Your task to perform on an android device: Search for usb-c to usb-b on walmart.com, select the first entry, add it to the cart, then select checkout. Image 0: 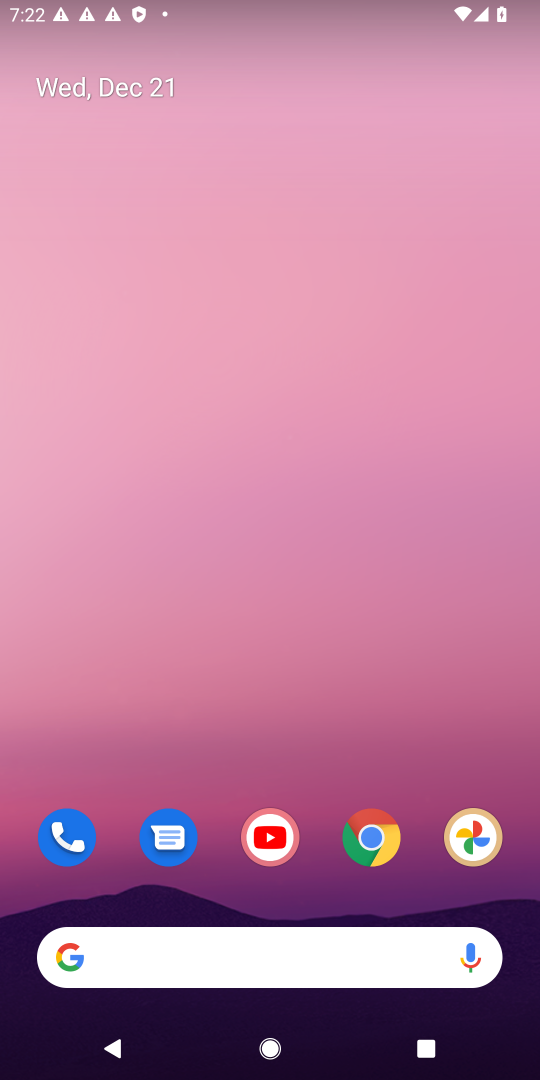
Step 0: drag from (273, 927) to (165, 140)
Your task to perform on an android device: Search for usb-c to usb-b on walmart.com, select the first entry, add it to the cart, then select checkout. Image 1: 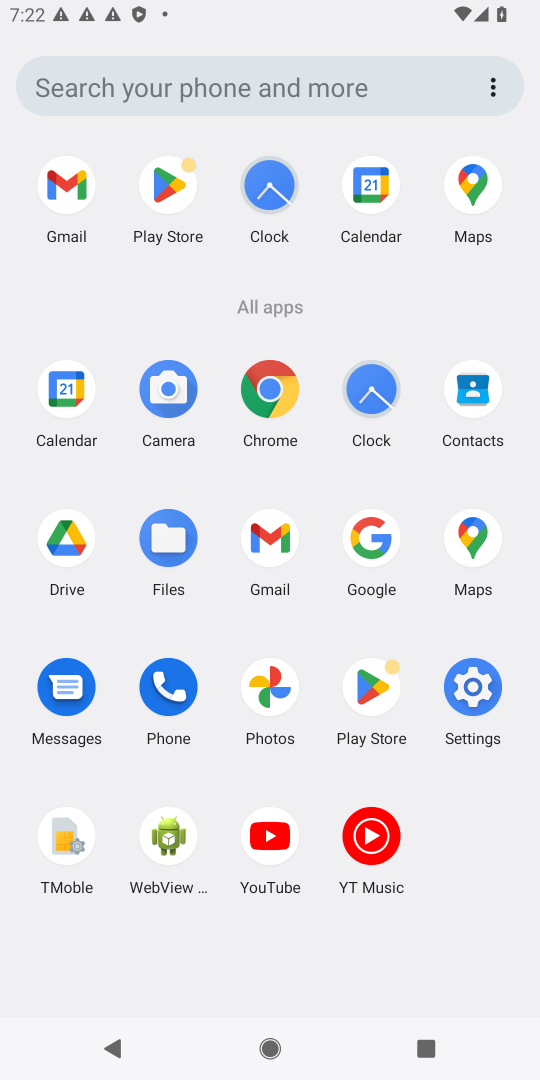
Step 1: click (386, 533)
Your task to perform on an android device: Search for usb-c to usb-b on walmart.com, select the first entry, add it to the cart, then select checkout. Image 2: 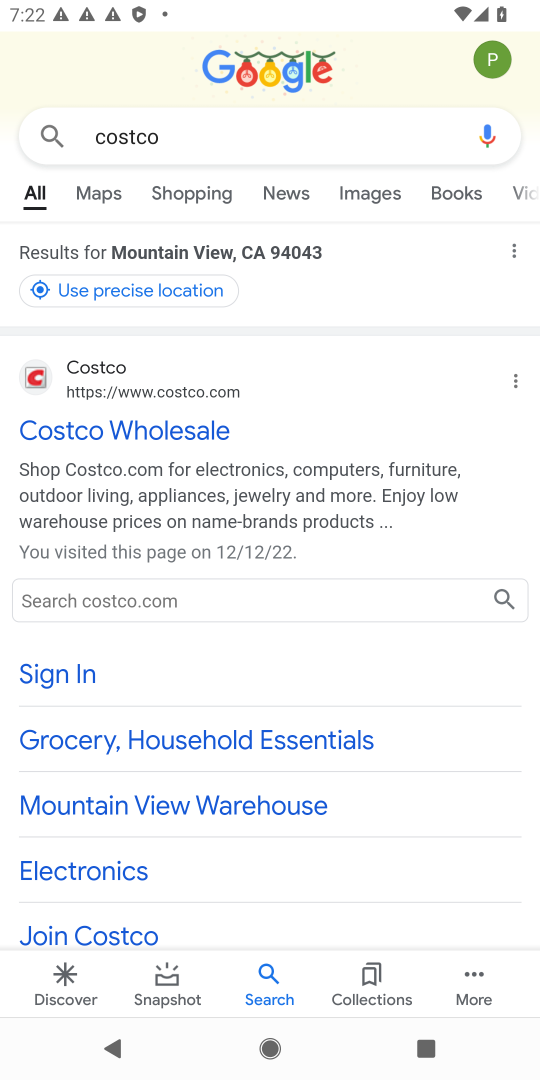
Step 2: click (110, 145)
Your task to perform on an android device: Search for usb-c to usb-b on walmart.com, select the first entry, add it to the cart, then select checkout. Image 3: 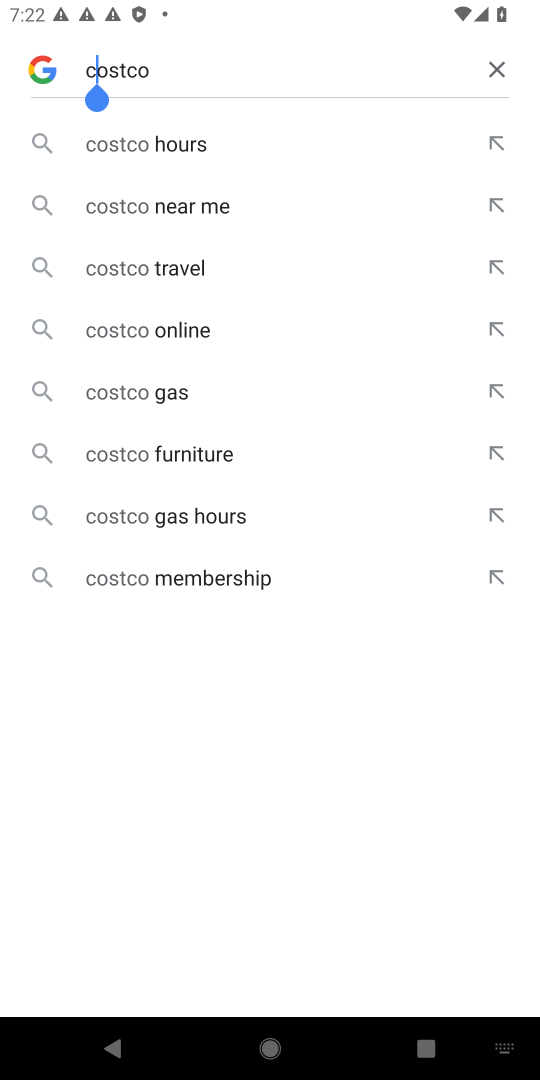
Step 3: click (506, 66)
Your task to perform on an android device: Search for usb-c to usb-b on walmart.com, select the first entry, add it to the cart, then select checkout. Image 4: 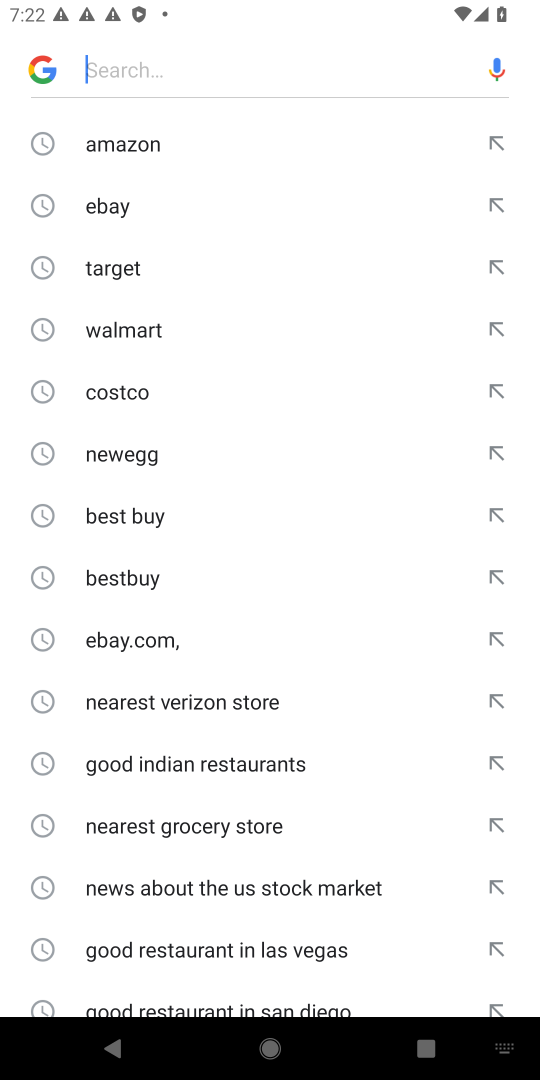
Step 4: click (121, 328)
Your task to perform on an android device: Search for usb-c to usb-b on walmart.com, select the first entry, add it to the cart, then select checkout. Image 5: 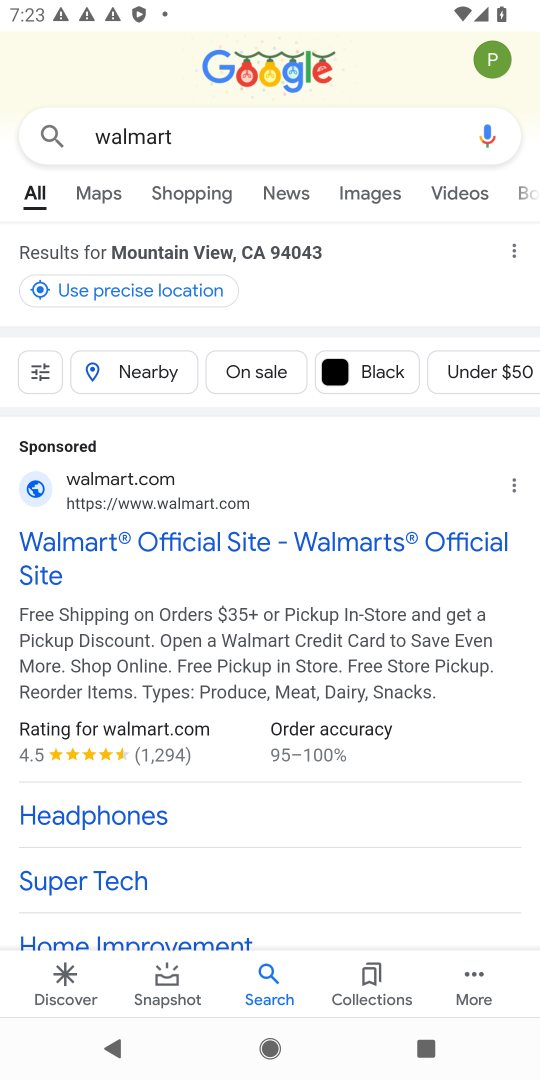
Step 5: click (152, 550)
Your task to perform on an android device: Search for usb-c to usb-b on walmart.com, select the first entry, add it to the cart, then select checkout. Image 6: 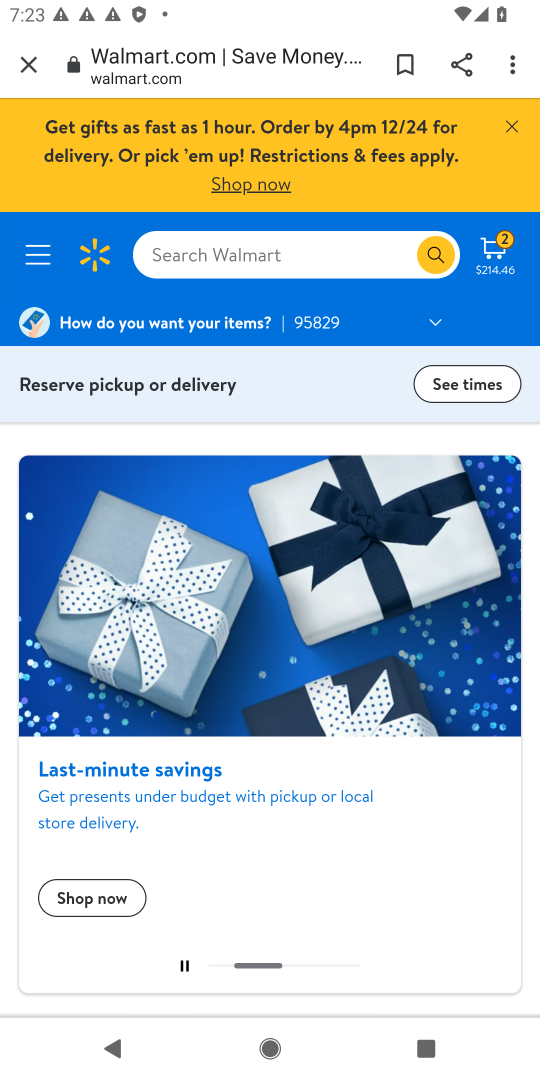
Step 6: click (163, 250)
Your task to perform on an android device: Search for usb-c to usb-b on walmart.com, select the first entry, add it to the cart, then select checkout. Image 7: 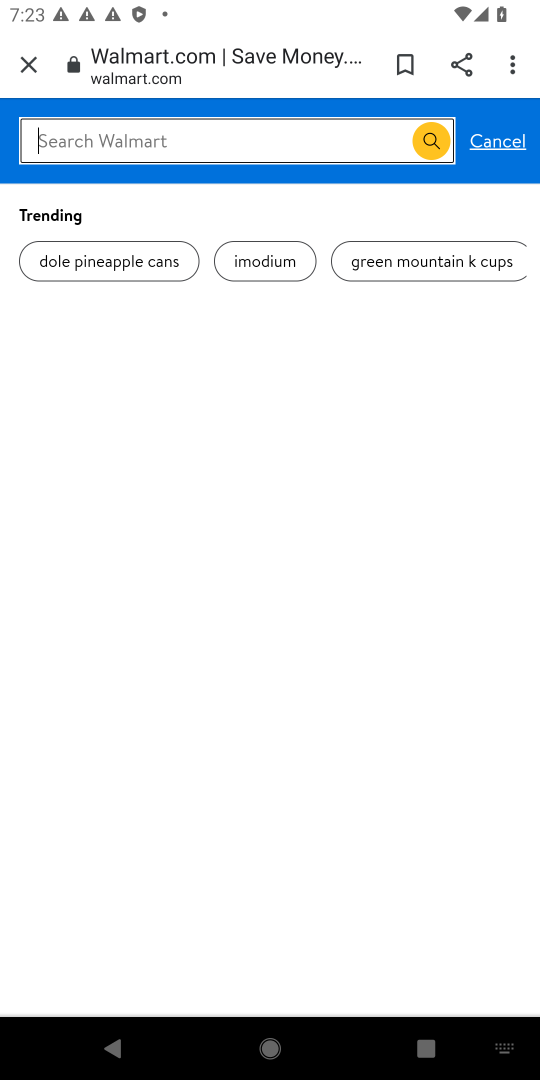
Step 7: type "usb-c to usb-b"
Your task to perform on an android device: Search for usb-c to usb-b on walmart.com, select the first entry, add it to the cart, then select checkout. Image 8: 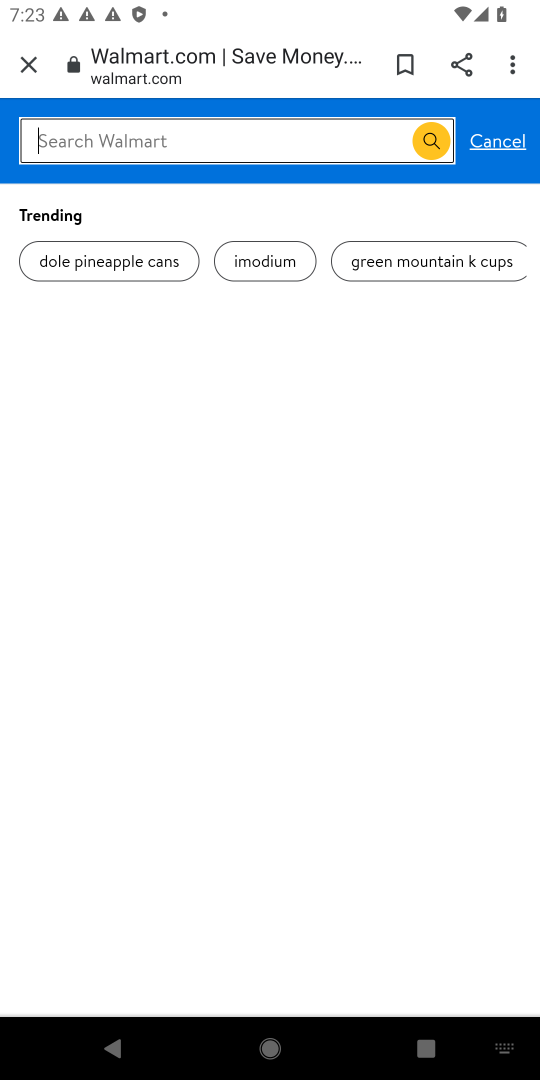
Step 8: click (439, 145)
Your task to perform on an android device: Search for usb-c to usb-b on walmart.com, select the first entry, add it to the cart, then select checkout. Image 9: 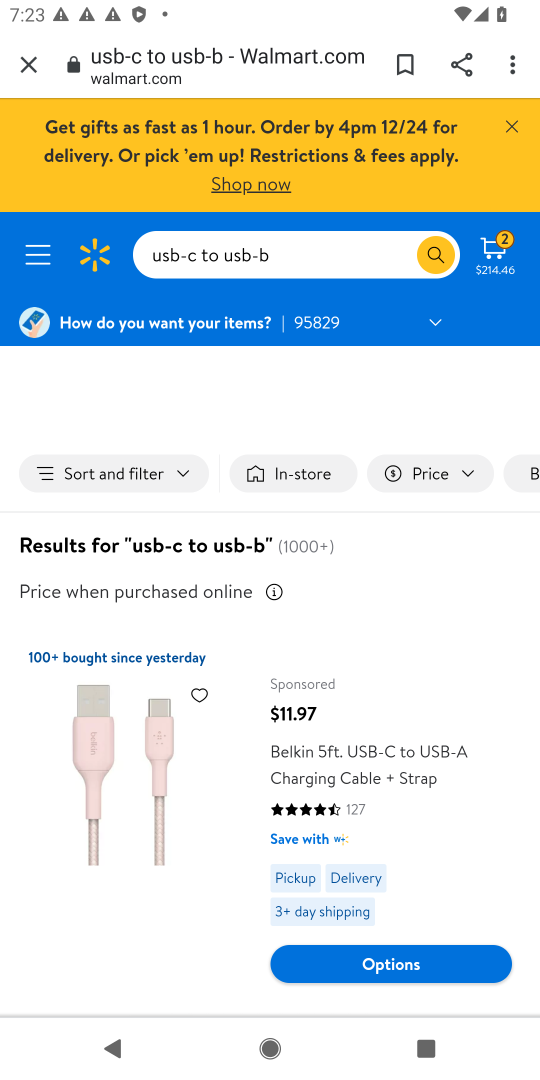
Step 9: drag from (435, 830) to (384, 426)
Your task to perform on an android device: Search for usb-c to usb-b on walmart.com, select the first entry, add it to the cart, then select checkout. Image 10: 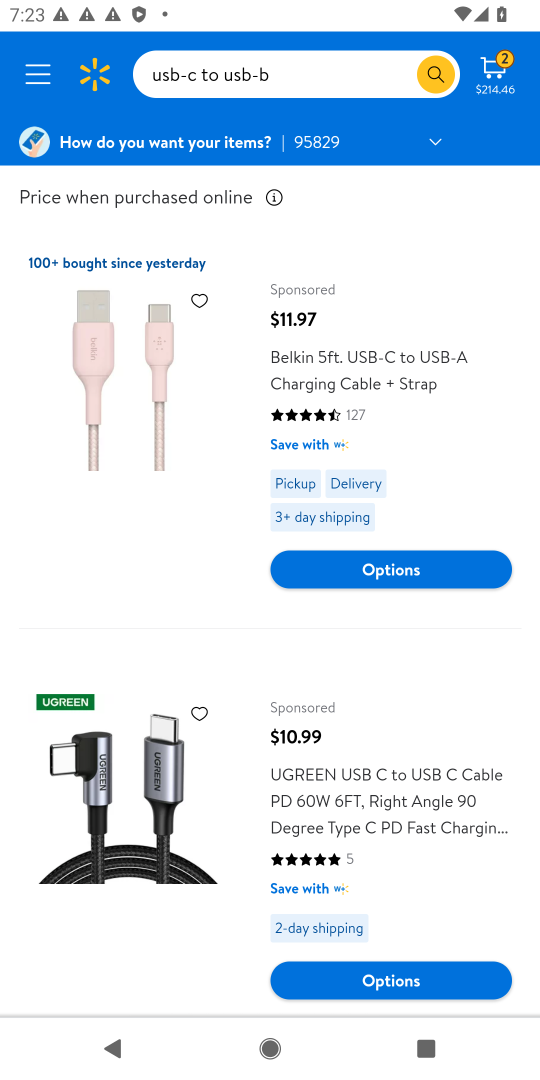
Step 10: click (408, 566)
Your task to perform on an android device: Search for usb-c to usb-b on walmart.com, select the first entry, add it to the cart, then select checkout. Image 11: 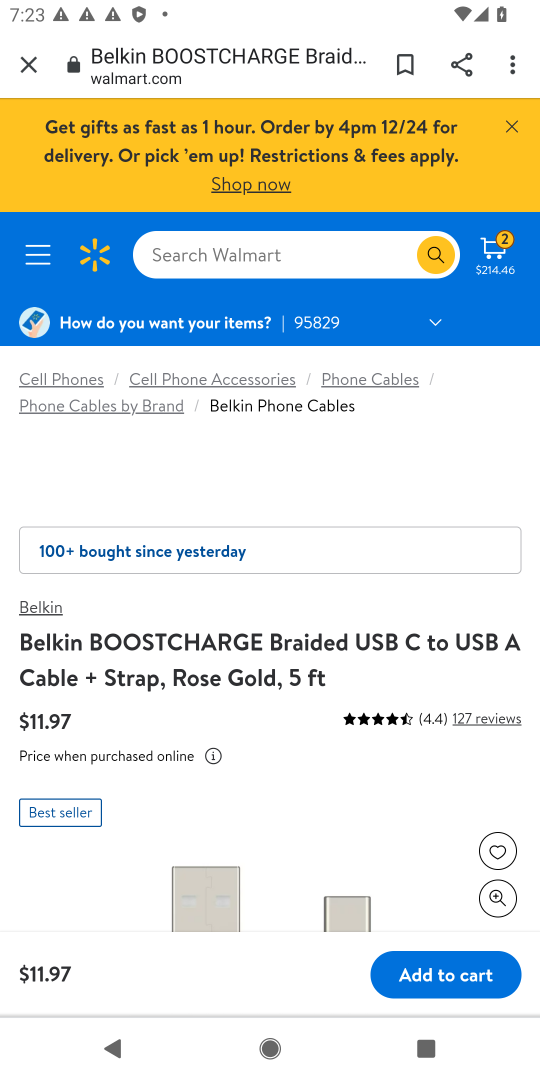
Step 11: drag from (343, 921) to (284, 504)
Your task to perform on an android device: Search for usb-c to usb-b on walmart.com, select the first entry, add it to the cart, then select checkout. Image 12: 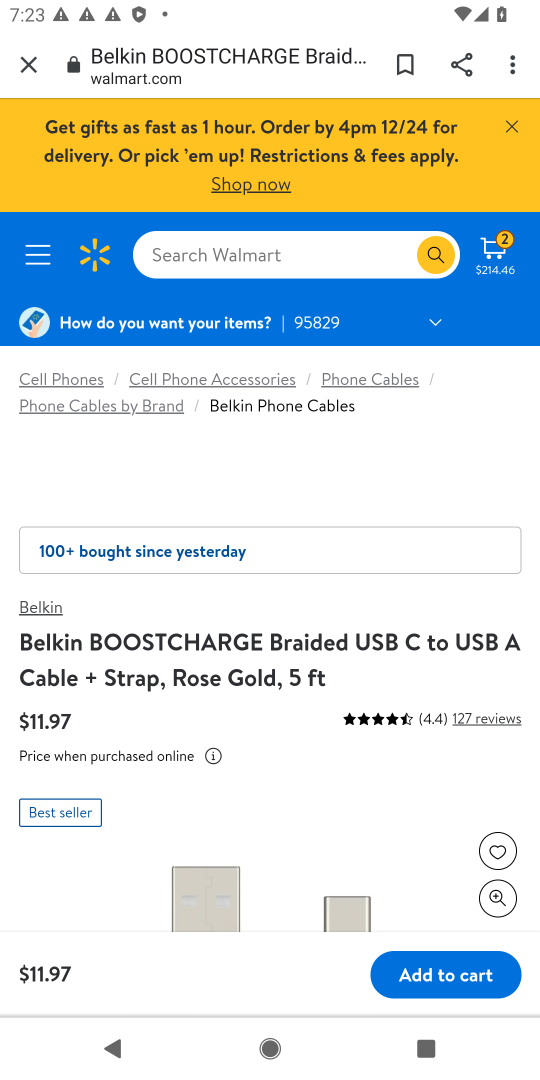
Step 12: click (443, 972)
Your task to perform on an android device: Search for usb-c to usb-b on walmart.com, select the first entry, add it to the cart, then select checkout. Image 13: 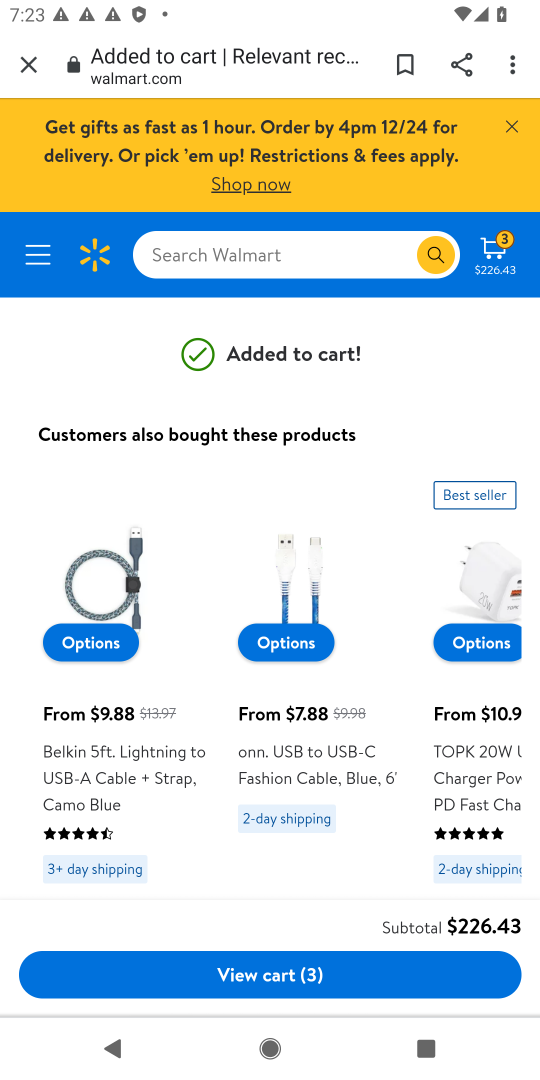
Step 13: click (287, 968)
Your task to perform on an android device: Search for usb-c to usb-b on walmart.com, select the first entry, add it to the cart, then select checkout. Image 14: 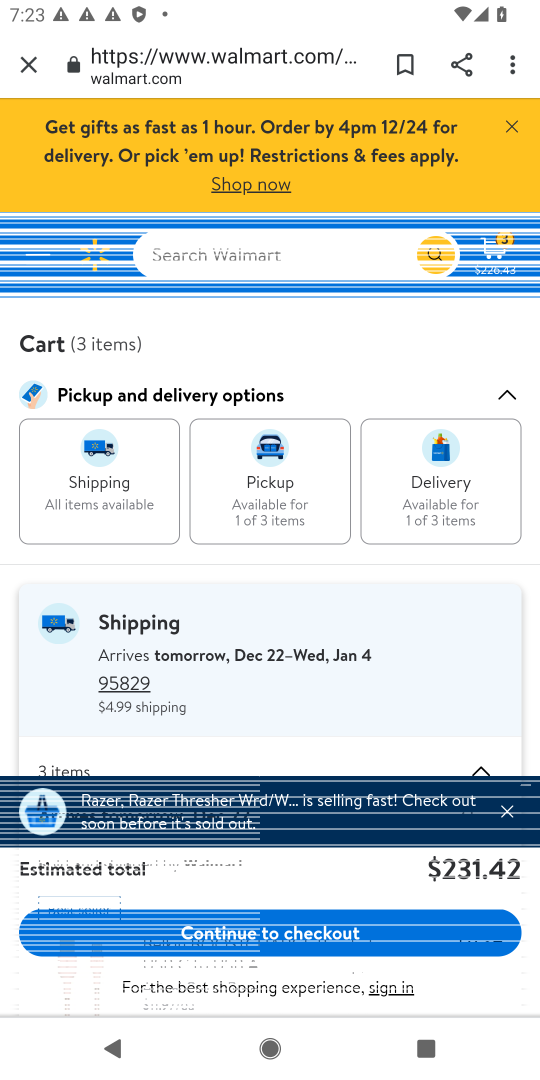
Step 14: click (276, 930)
Your task to perform on an android device: Search for usb-c to usb-b on walmart.com, select the first entry, add it to the cart, then select checkout. Image 15: 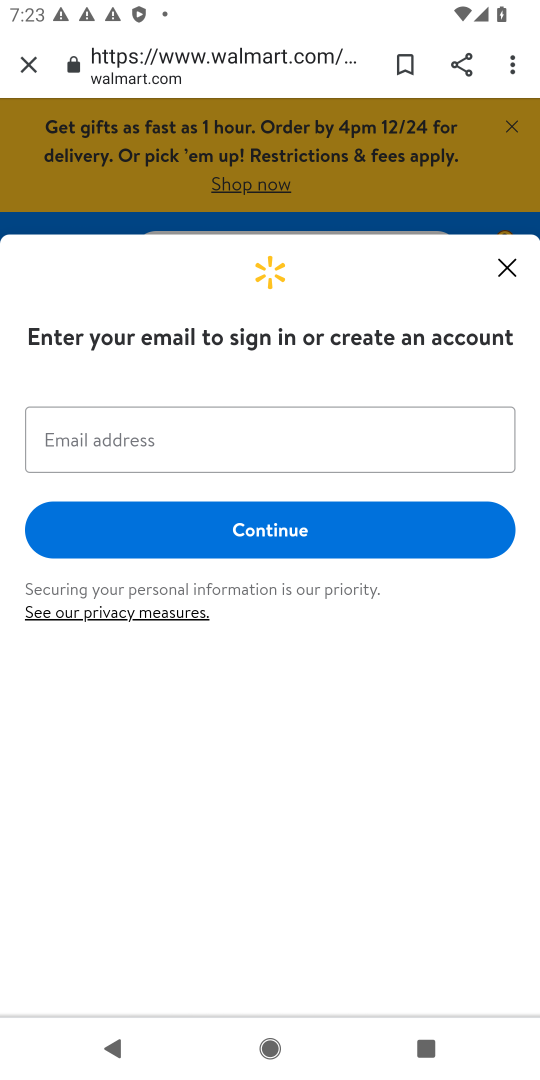
Step 15: task complete